Your task to perform on an android device: see creations saved in the google photos Image 0: 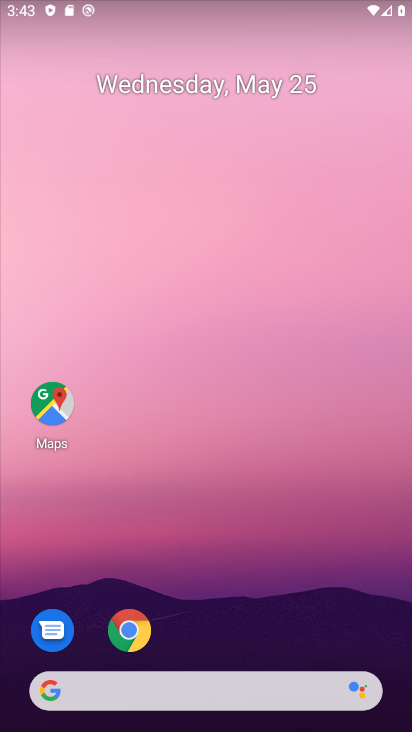
Step 0: drag from (296, 462) to (216, 132)
Your task to perform on an android device: see creations saved in the google photos Image 1: 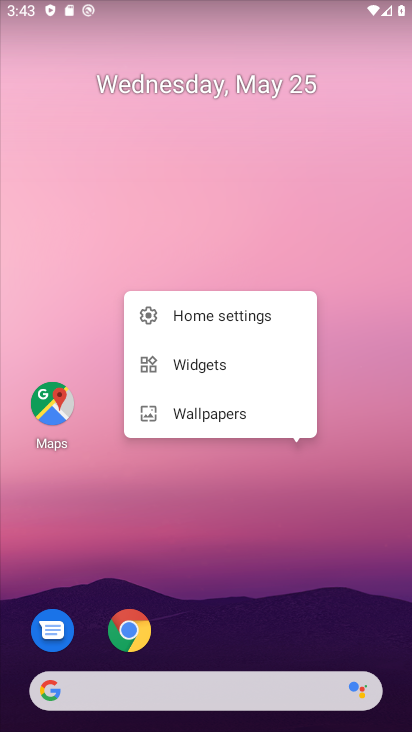
Step 1: drag from (278, 511) to (303, 4)
Your task to perform on an android device: see creations saved in the google photos Image 2: 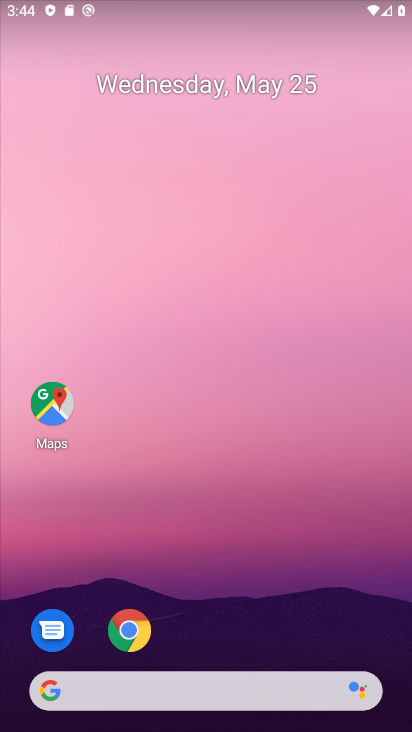
Step 2: click (346, 90)
Your task to perform on an android device: see creations saved in the google photos Image 3: 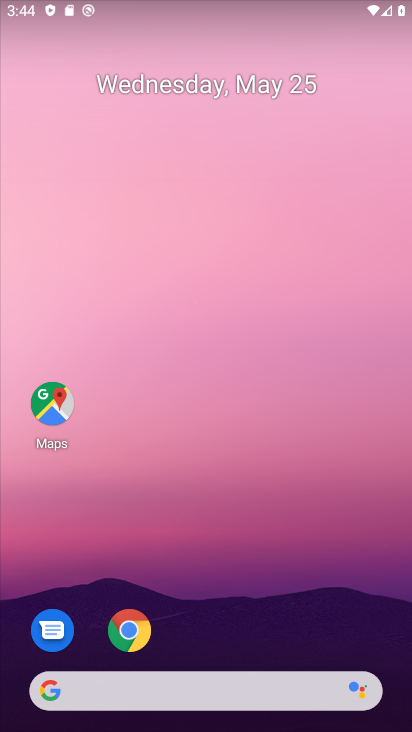
Step 3: drag from (385, 428) to (306, 15)
Your task to perform on an android device: see creations saved in the google photos Image 4: 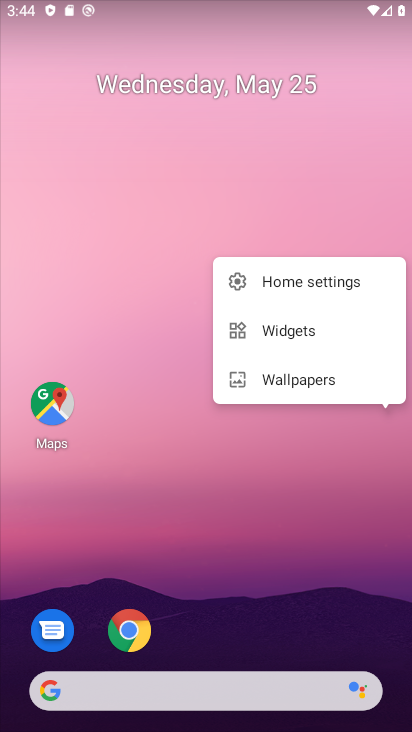
Step 4: drag from (197, 518) to (138, 22)
Your task to perform on an android device: see creations saved in the google photos Image 5: 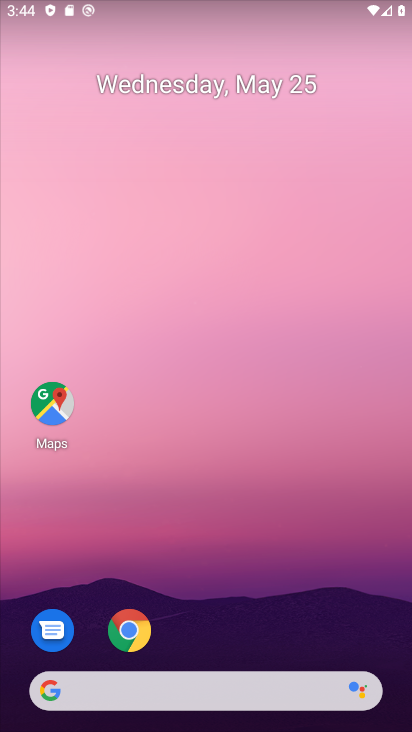
Step 5: drag from (245, 527) to (178, 59)
Your task to perform on an android device: see creations saved in the google photos Image 6: 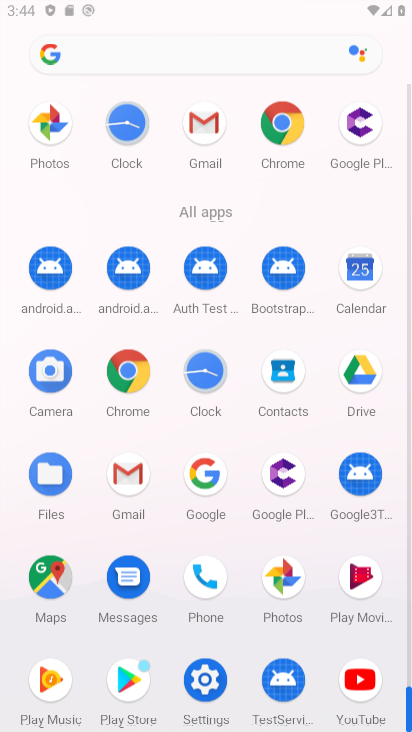
Step 6: drag from (217, 485) to (217, 2)
Your task to perform on an android device: see creations saved in the google photos Image 7: 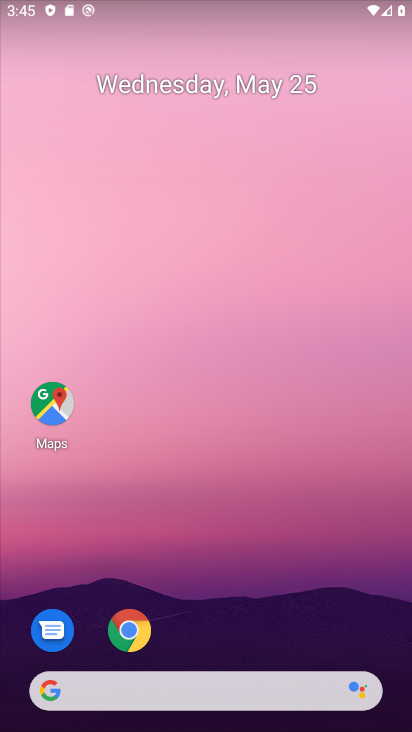
Step 7: click (192, 2)
Your task to perform on an android device: see creations saved in the google photos Image 8: 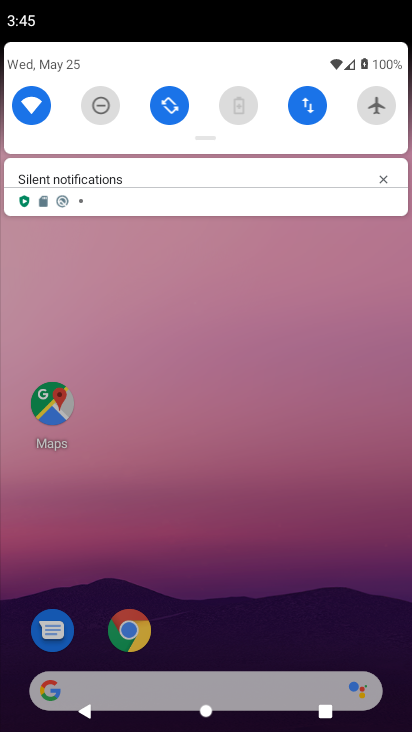
Step 8: click (184, 197)
Your task to perform on an android device: see creations saved in the google photos Image 9: 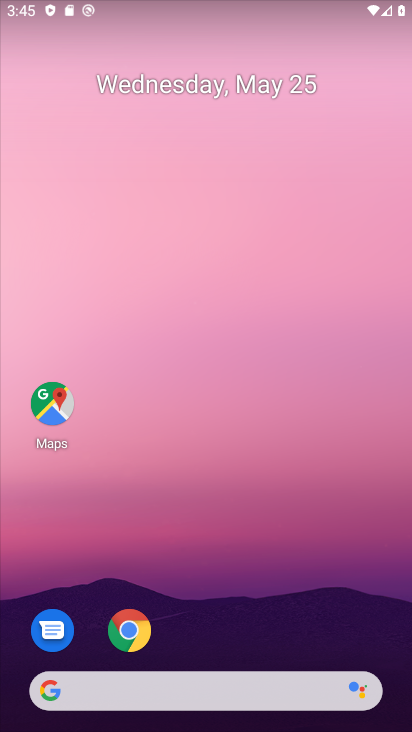
Step 9: click (73, 68)
Your task to perform on an android device: see creations saved in the google photos Image 10: 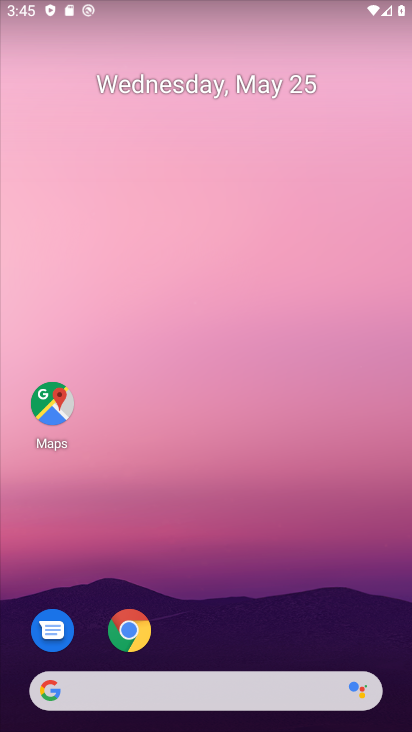
Step 10: drag from (247, 499) to (172, 107)
Your task to perform on an android device: see creations saved in the google photos Image 11: 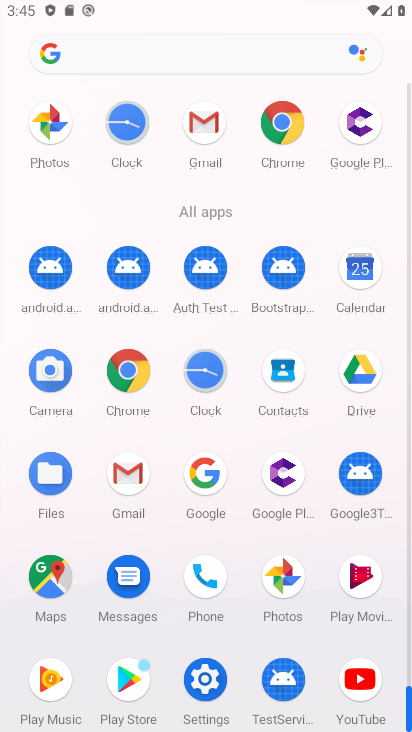
Step 11: click (279, 588)
Your task to perform on an android device: see creations saved in the google photos Image 12: 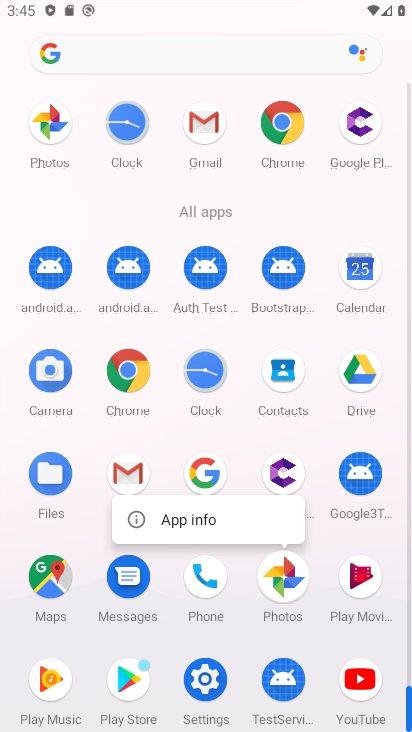
Step 12: click (281, 587)
Your task to perform on an android device: see creations saved in the google photos Image 13: 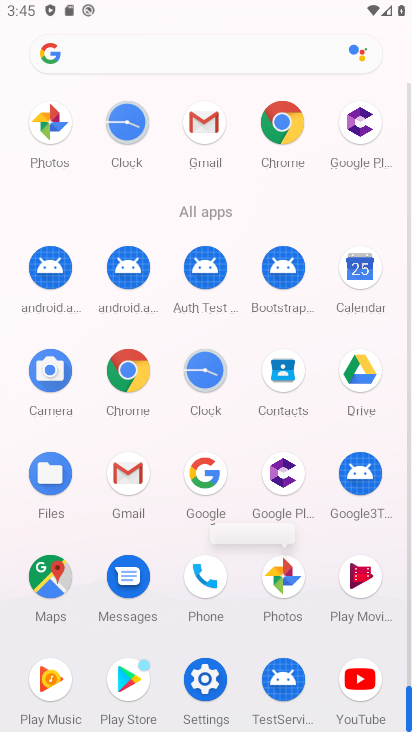
Step 13: click (282, 587)
Your task to perform on an android device: see creations saved in the google photos Image 14: 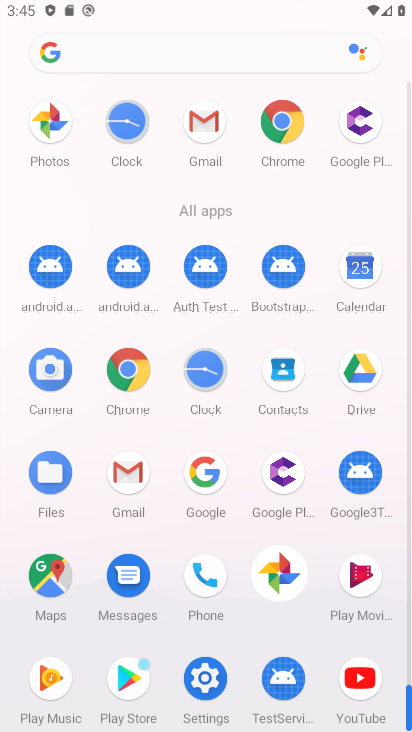
Step 14: click (283, 586)
Your task to perform on an android device: see creations saved in the google photos Image 15: 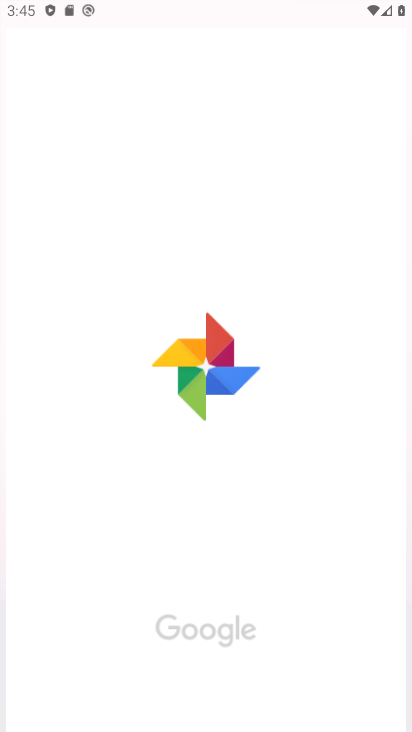
Step 15: click (283, 586)
Your task to perform on an android device: see creations saved in the google photos Image 16: 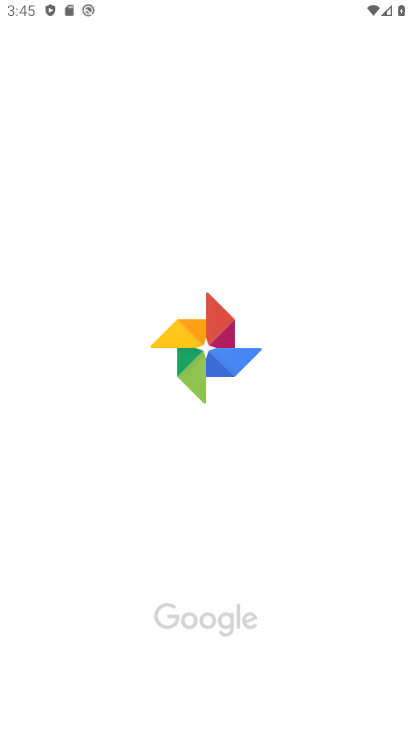
Step 16: click (283, 583)
Your task to perform on an android device: see creations saved in the google photos Image 17: 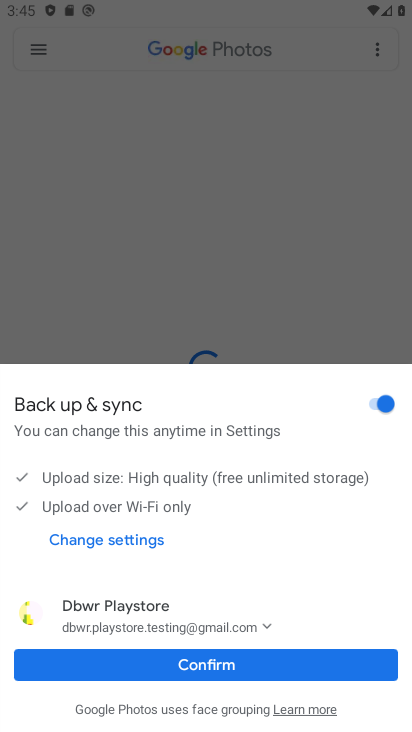
Step 17: click (236, 662)
Your task to perform on an android device: see creations saved in the google photos Image 18: 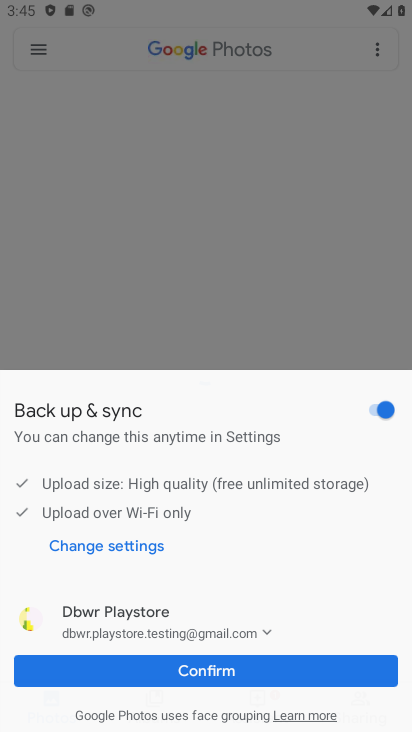
Step 18: click (236, 662)
Your task to perform on an android device: see creations saved in the google photos Image 19: 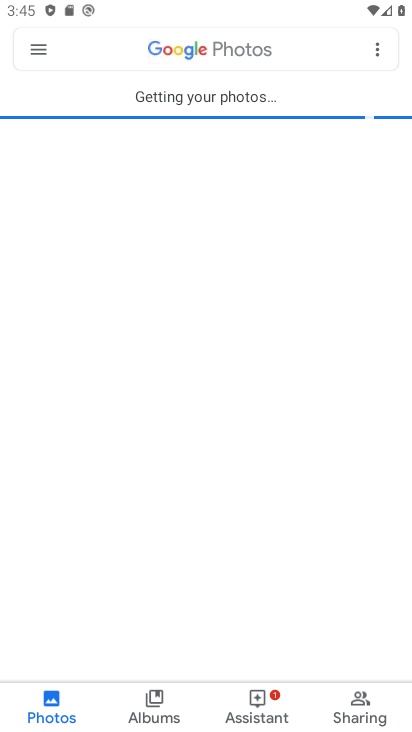
Step 19: click (241, 661)
Your task to perform on an android device: see creations saved in the google photos Image 20: 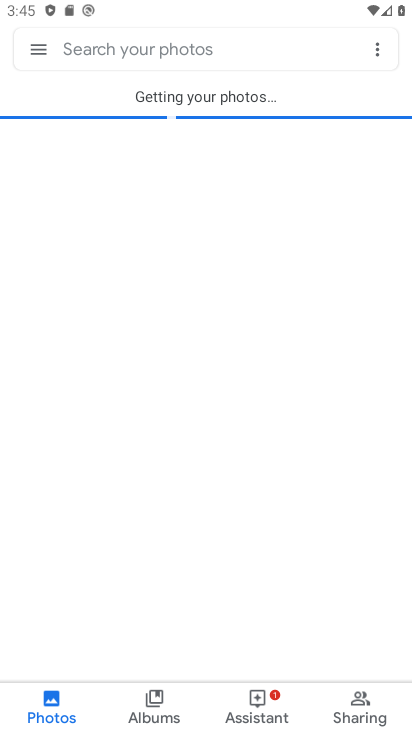
Step 20: task complete